Your task to perform on an android device: add a contact in the contacts app Image 0: 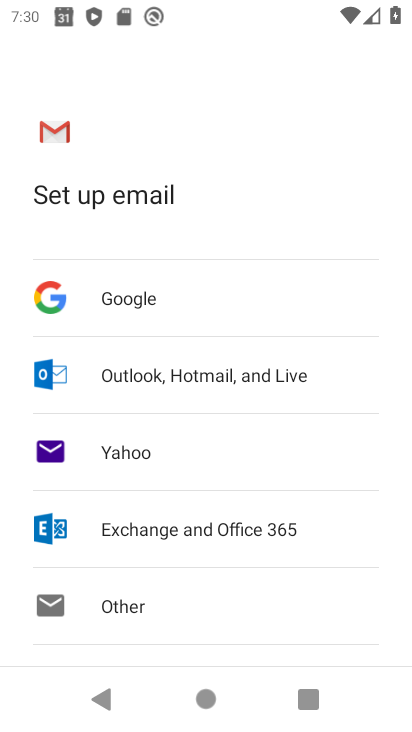
Step 0: press home button
Your task to perform on an android device: add a contact in the contacts app Image 1: 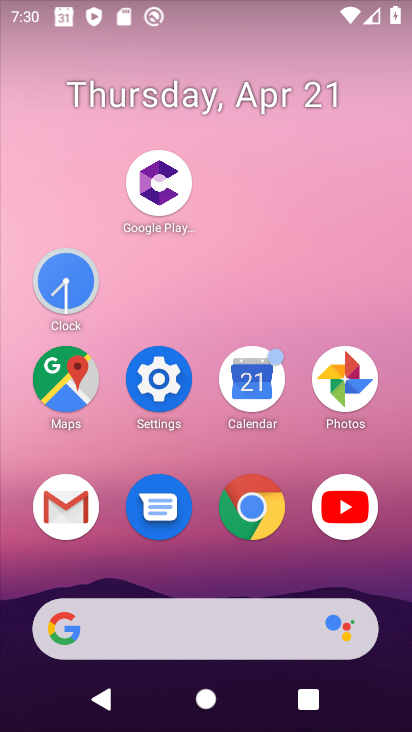
Step 1: drag from (205, 547) to (189, 57)
Your task to perform on an android device: add a contact in the contacts app Image 2: 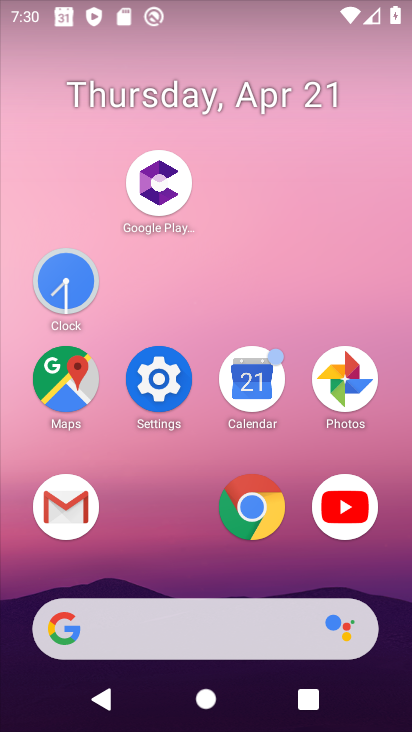
Step 2: drag from (169, 545) to (178, 125)
Your task to perform on an android device: add a contact in the contacts app Image 3: 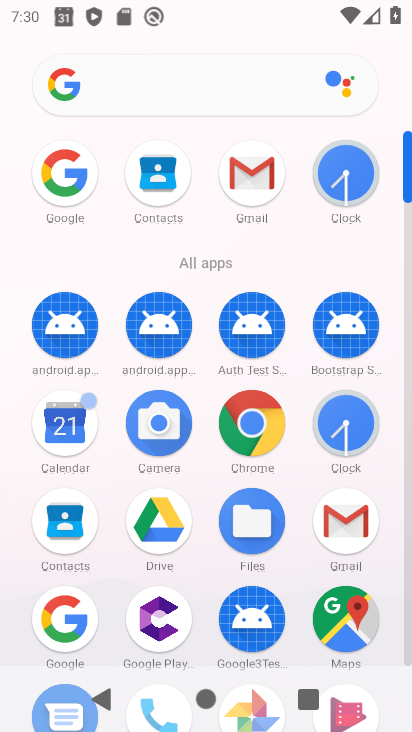
Step 3: click (64, 524)
Your task to perform on an android device: add a contact in the contacts app Image 4: 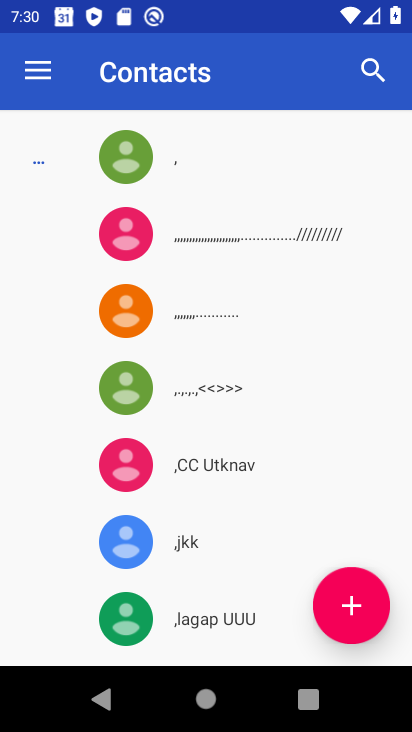
Step 4: click (342, 606)
Your task to perform on an android device: add a contact in the contacts app Image 5: 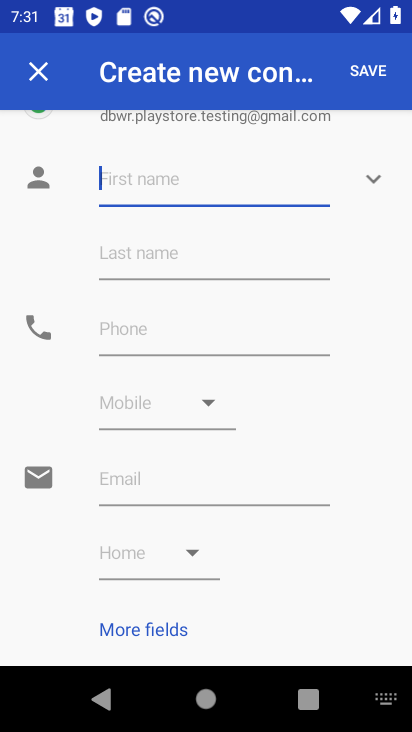
Step 5: type "fgfgfg"
Your task to perform on an android device: add a contact in the contacts app Image 6: 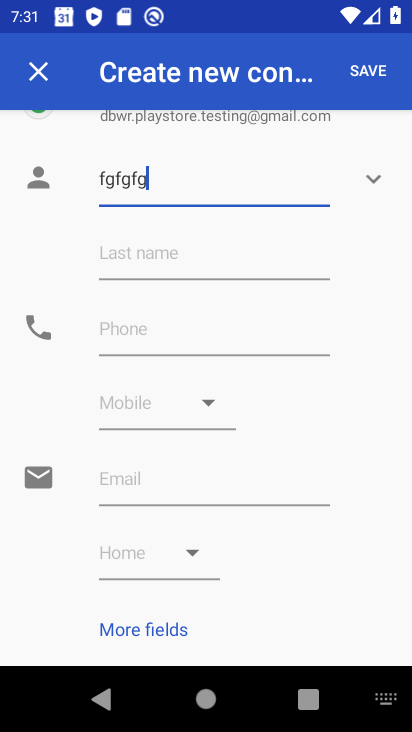
Step 6: click (146, 328)
Your task to perform on an android device: add a contact in the contacts app Image 7: 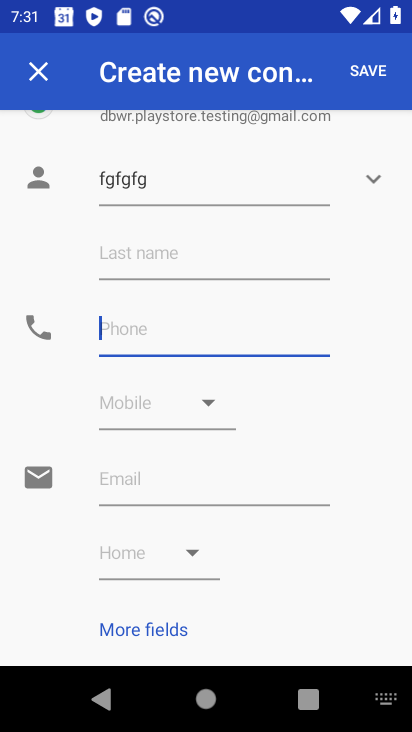
Step 7: type "777776"
Your task to perform on an android device: add a contact in the contacts app Image 8: 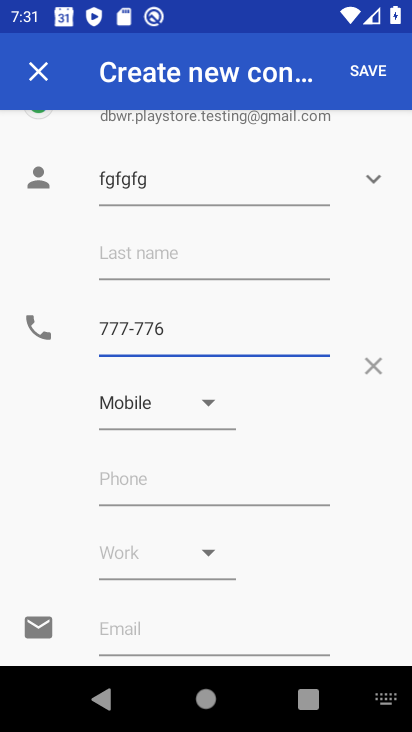
Step 8: click (362, 69)
Your task to perform on an android device: add a contact in the contacts app Image 9: 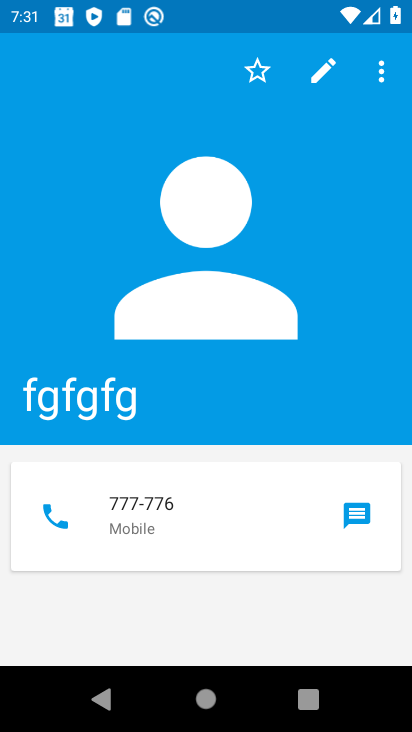
Step 9: task complete